Your task to perform on an android device: What's the weather going to be this weekend? Image 0: 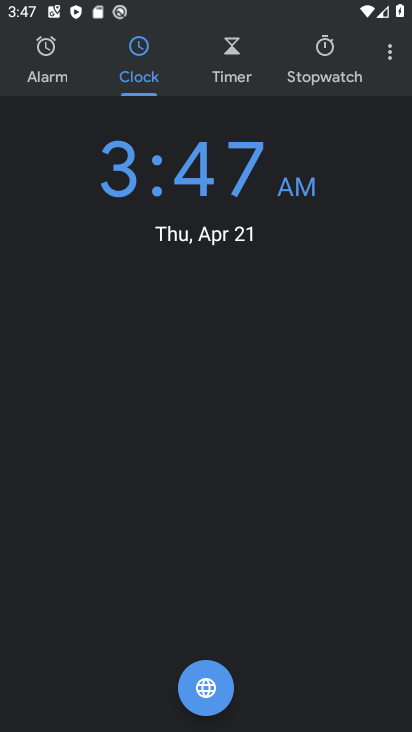
Step 0: press back button
Your task to perform on an android device: What's the weather going to be this weekend? Image 1: 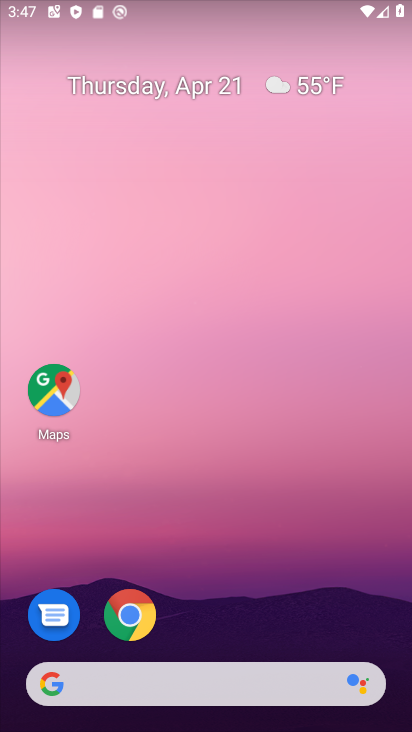
Step 1: drag from (191, 579) to (185, 45)
Your task to perform on an android device: What's the weather going to be this weekend? Image 2: 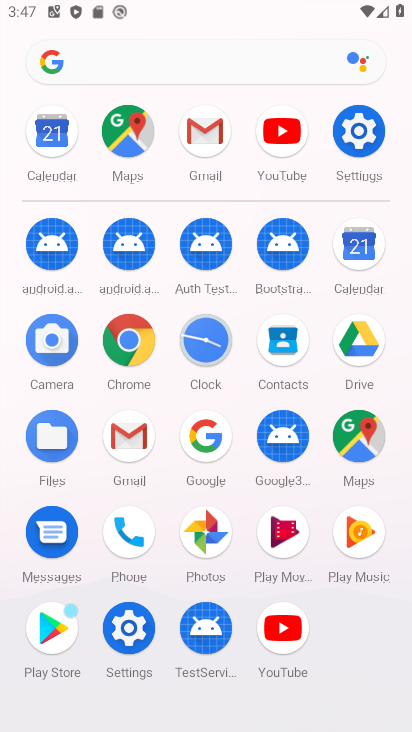
Step 2: click (125, 340)
Your task to perform on an android device: What's the weather going to be this weekend? Image 3: 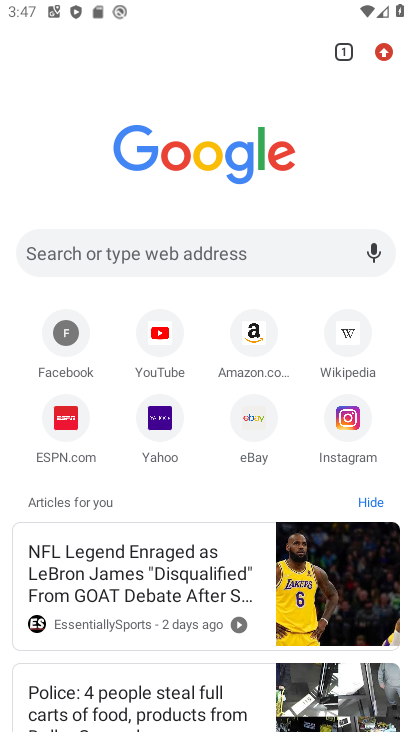
Step 3: click (169, 257)
Your task to perform on an android device: What's the weather going to be this weekend? Image 4: 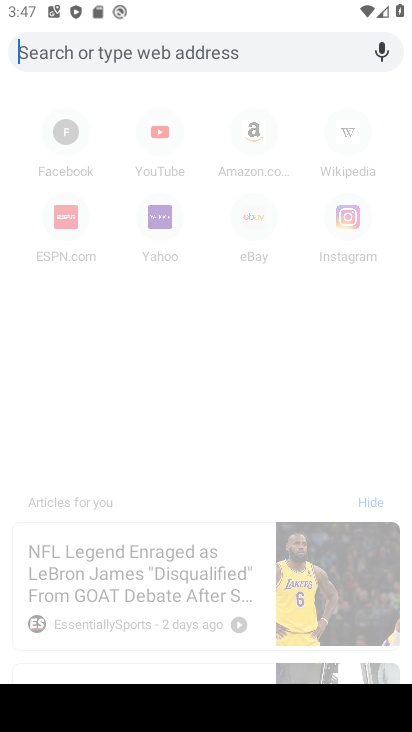
Step 4: click (85, 40)
Your task to perform on an android device: What's the weather going to be this weekend? Image 5: 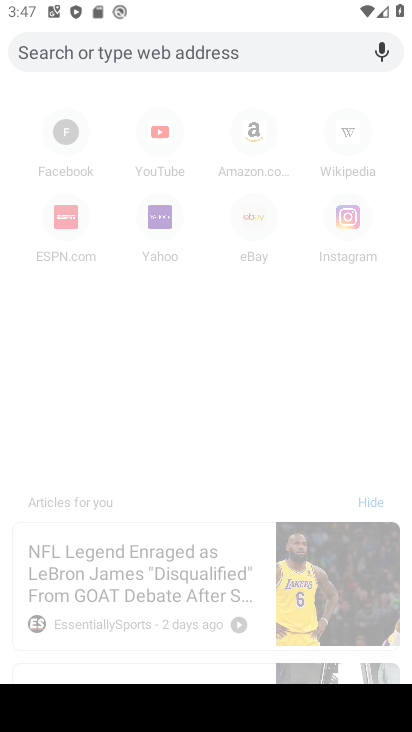
Step 5: type "What's the weather going to be this weekend"
Your task to perform on an android device: What's the weather going to be this weekend? Image 6: 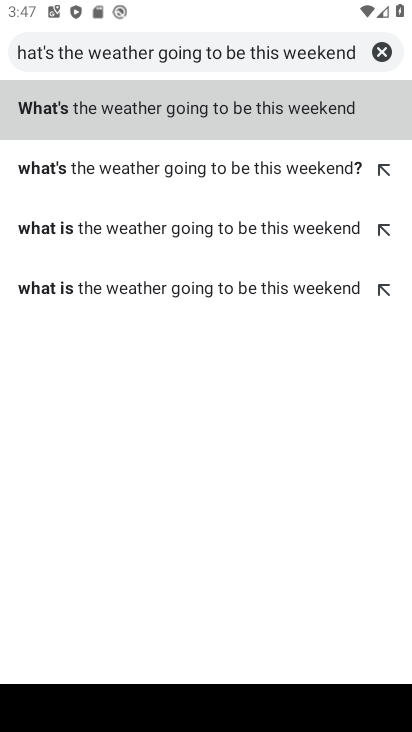
Step 6: click (187, 118)
Your task to perform on an android device: What's the weather going to be this weekend? Image 7: 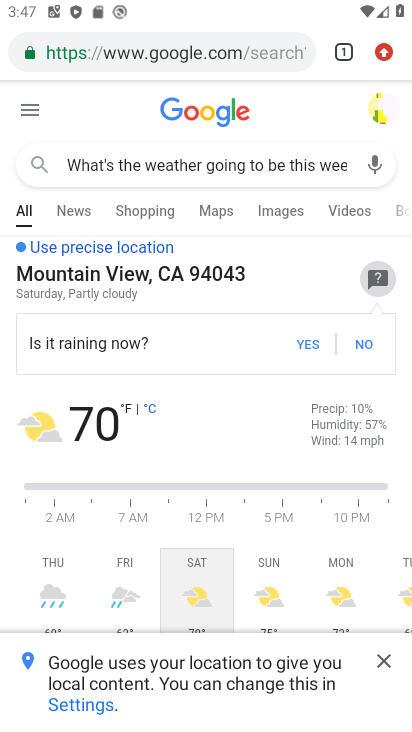
Step 7: click (270, 228)
Your task to perform on an android device: What's the weather going to be this weekend? Image 8: 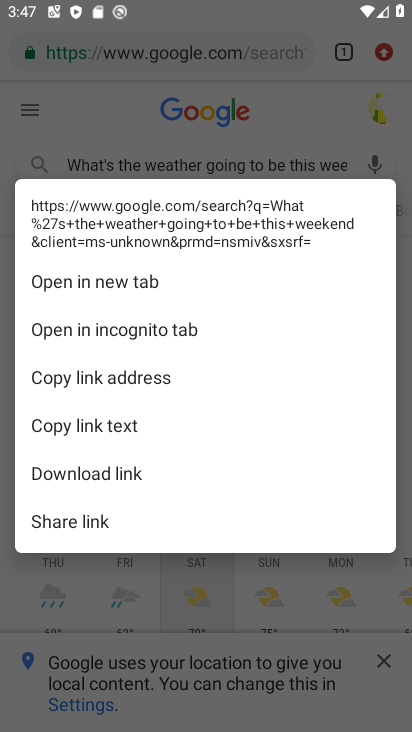
Step 8: click (191, 593)
Your task to perform on an android device: What's the weather going to be this weekend? Image 9: 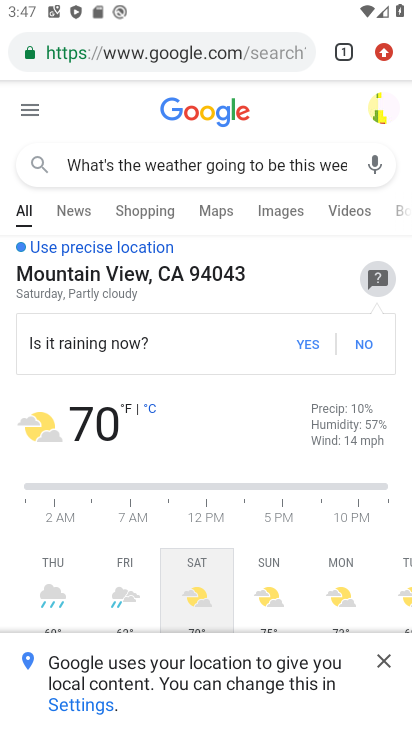
Step 9: task complete